Your task to perform on an android device: Open the stopwatch Image 0: 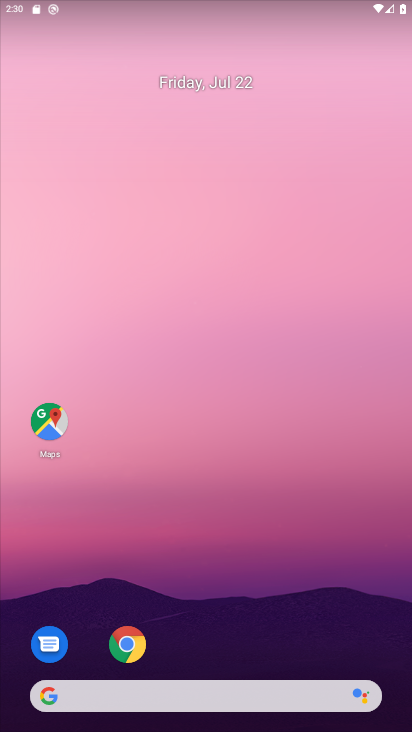
Step 0: drag from (220, 661) to (214, 215)
Your task to perform on an android device: Open the stopwatch Image 1: 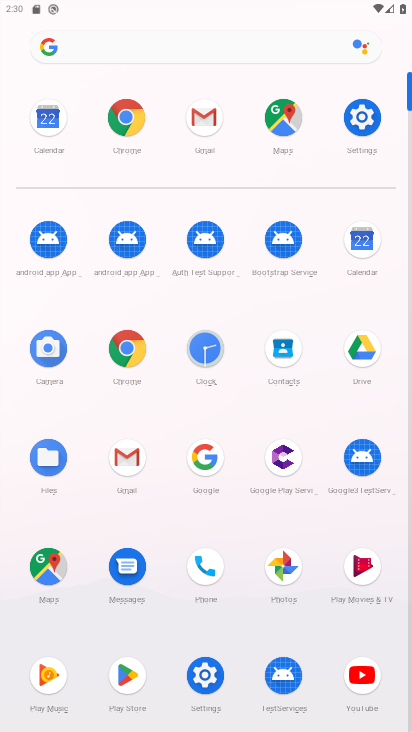
Step 1: click (206, 350)
Your task to perform on an android device: Open the stopwatch Image 2: 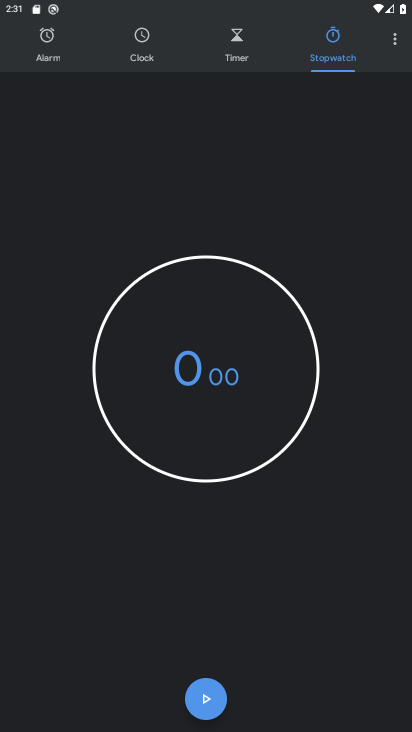
Step 2: task complete